Your task to perform on an android device: check storage Image 0: 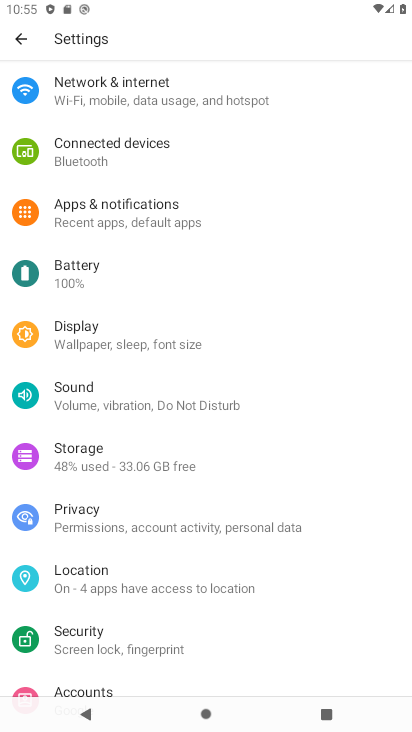
Step 0: click (97, 462)
Your task to perform on an android device: check storage Image 1: 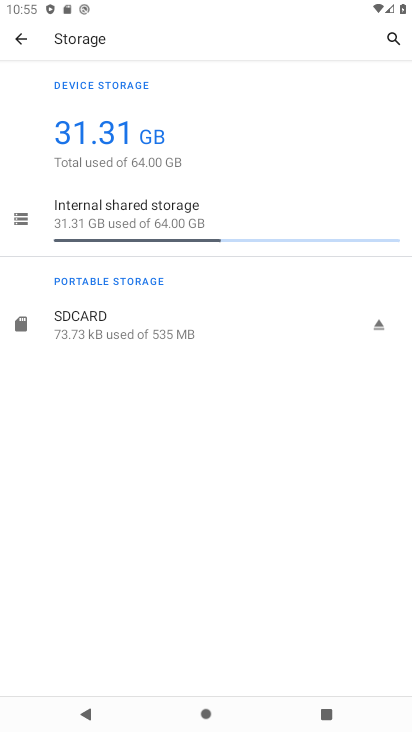
Step 1: task complete